Your task to perform on an android device: Open Google Chrome Image 0: 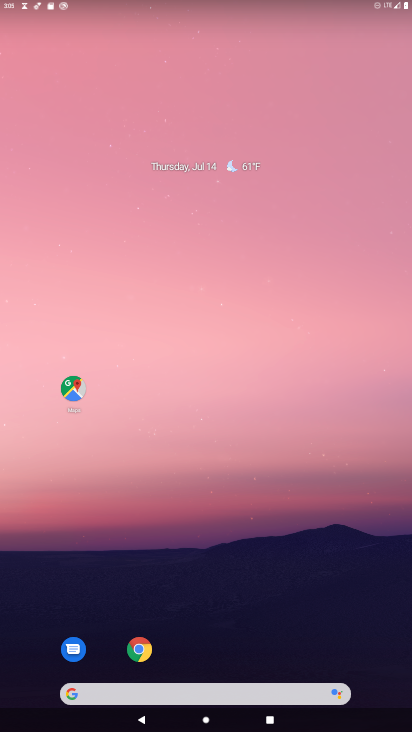
Step 0: drag from (284, 689) to (281, 142)
Your task to perform on an android device: Open Google Chrome Image 1: 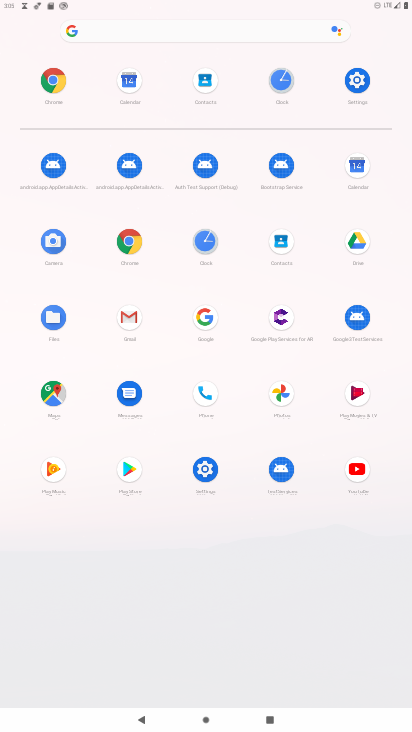
Step 1: click (123, 252)
Your task to perform on an android device: Open Google Chrome Image 2: 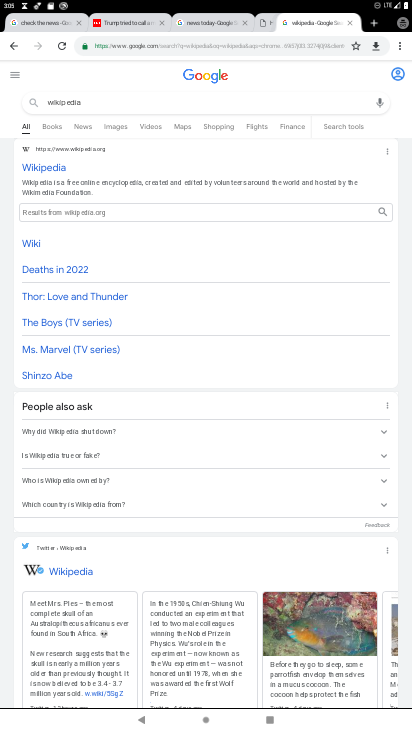
Step 2: task complete